Your task to perform on an android device: check battery use Image 0: 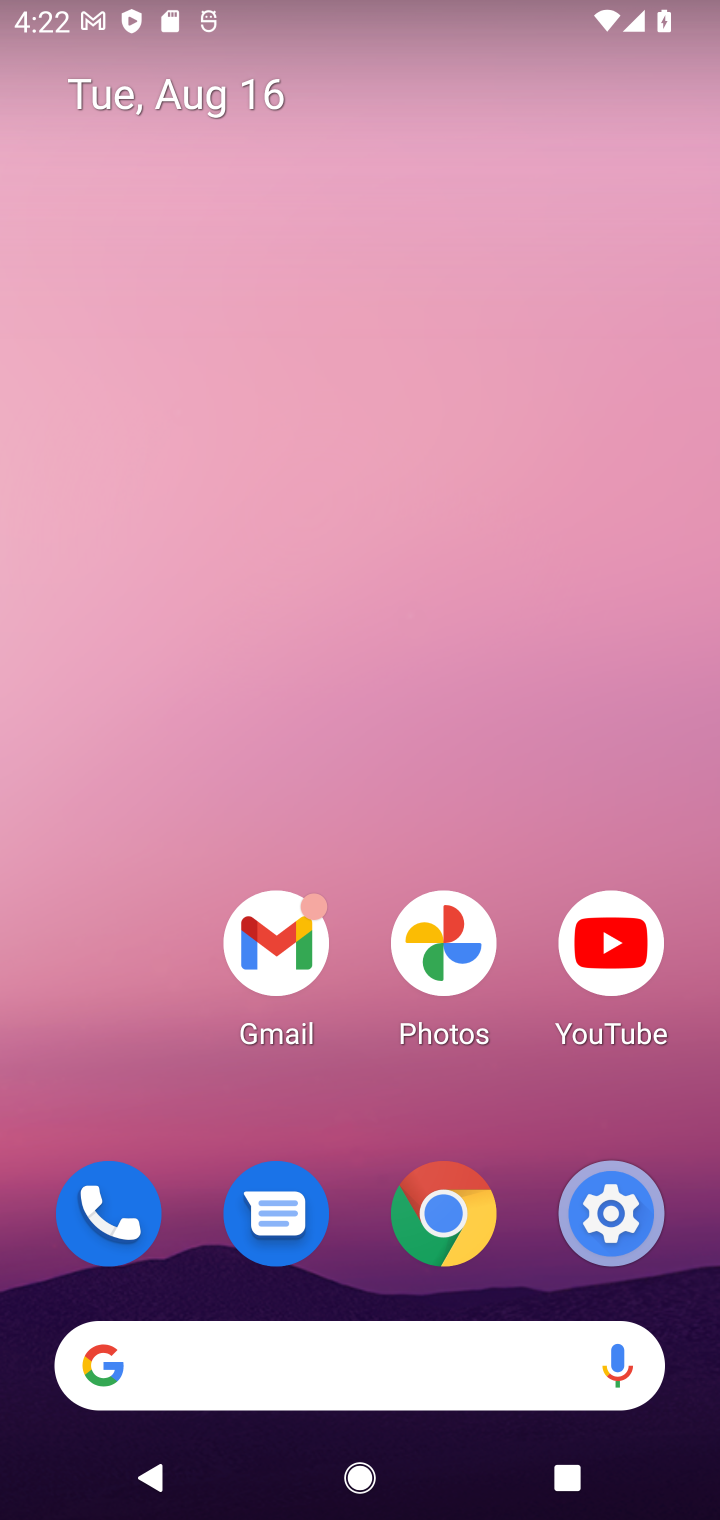
Step 0: drag from (357, 1088) to (453, 11)
Your task to perform on an android device: check battery use Image 1: 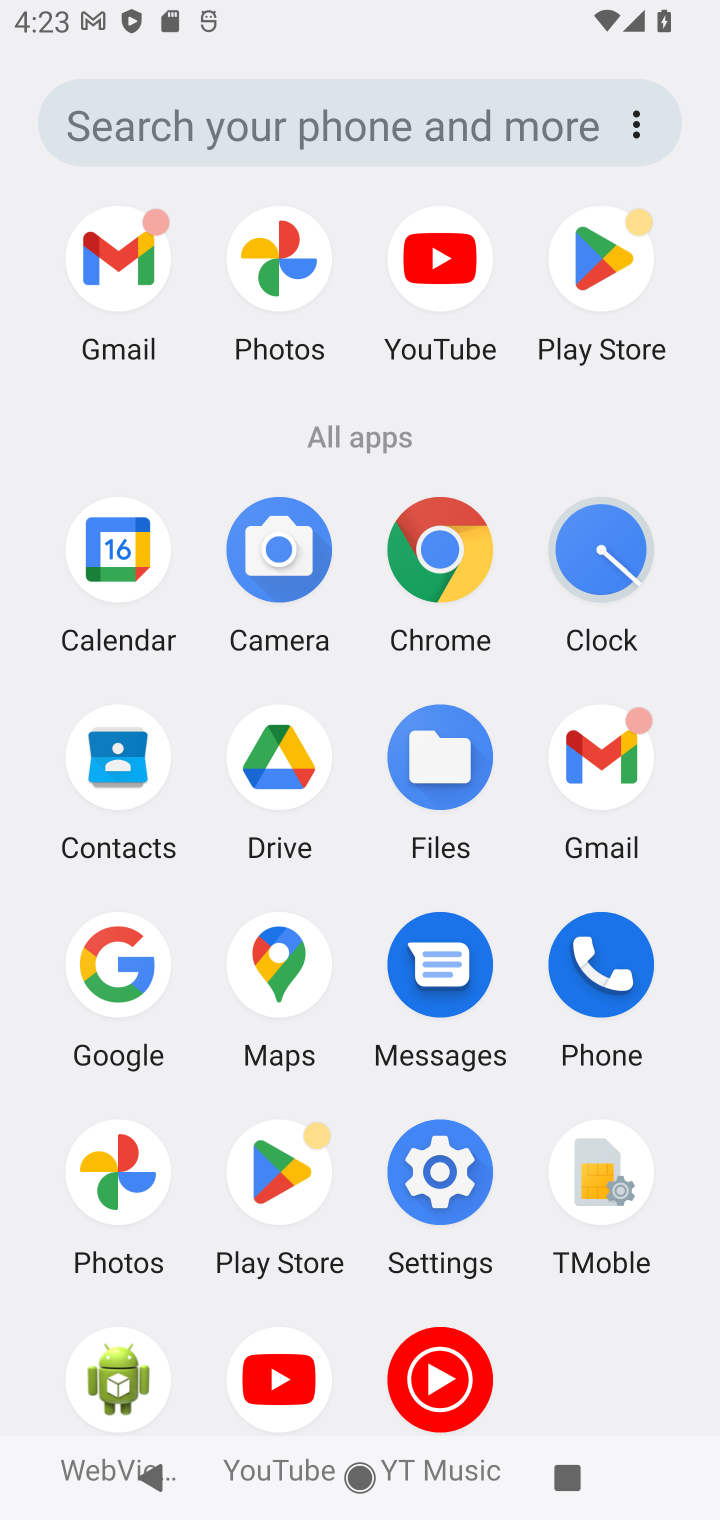
Step 1: click (430, 1173)
Your task to perform on an android device: check battery use Image 2: 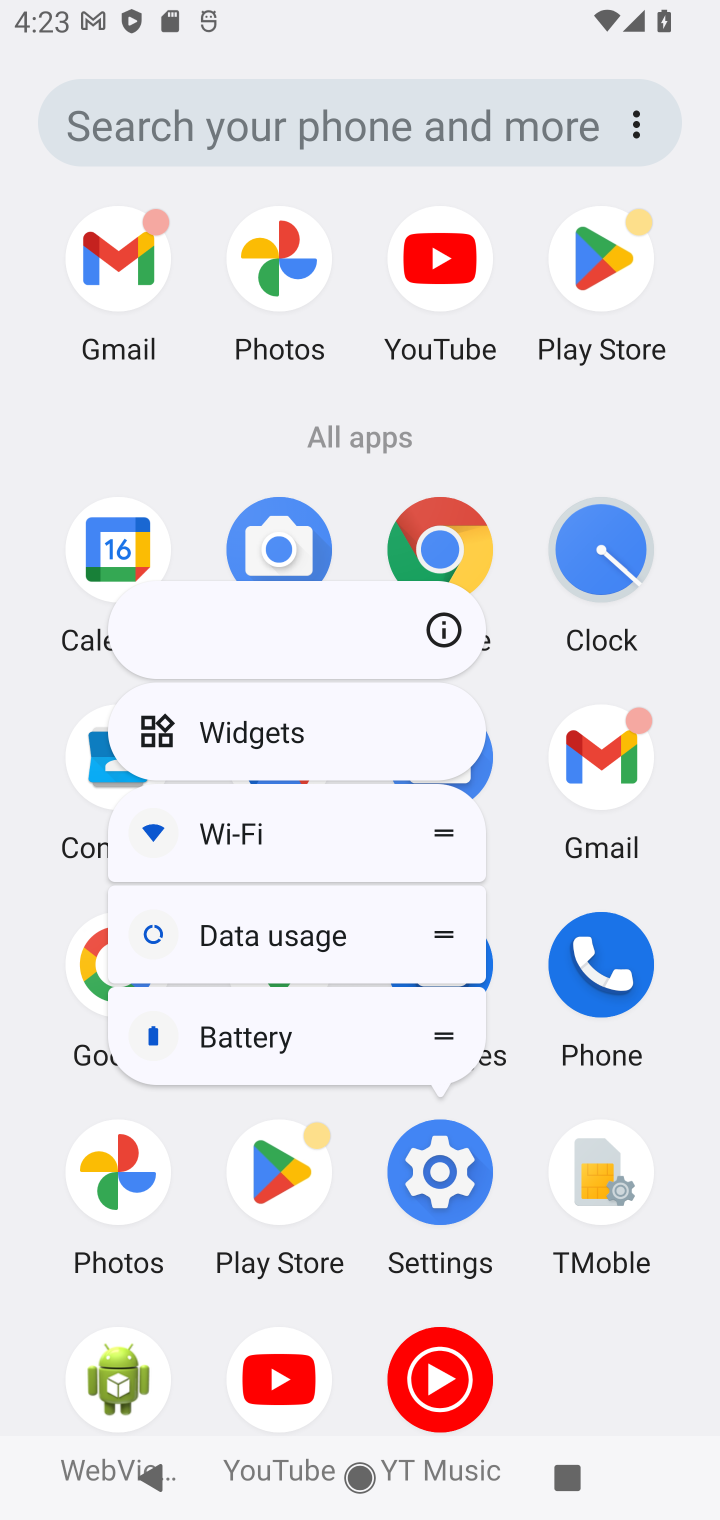
Step 2: click (439, 1169)
Your task to perform on an android device: check battery use Image 3: 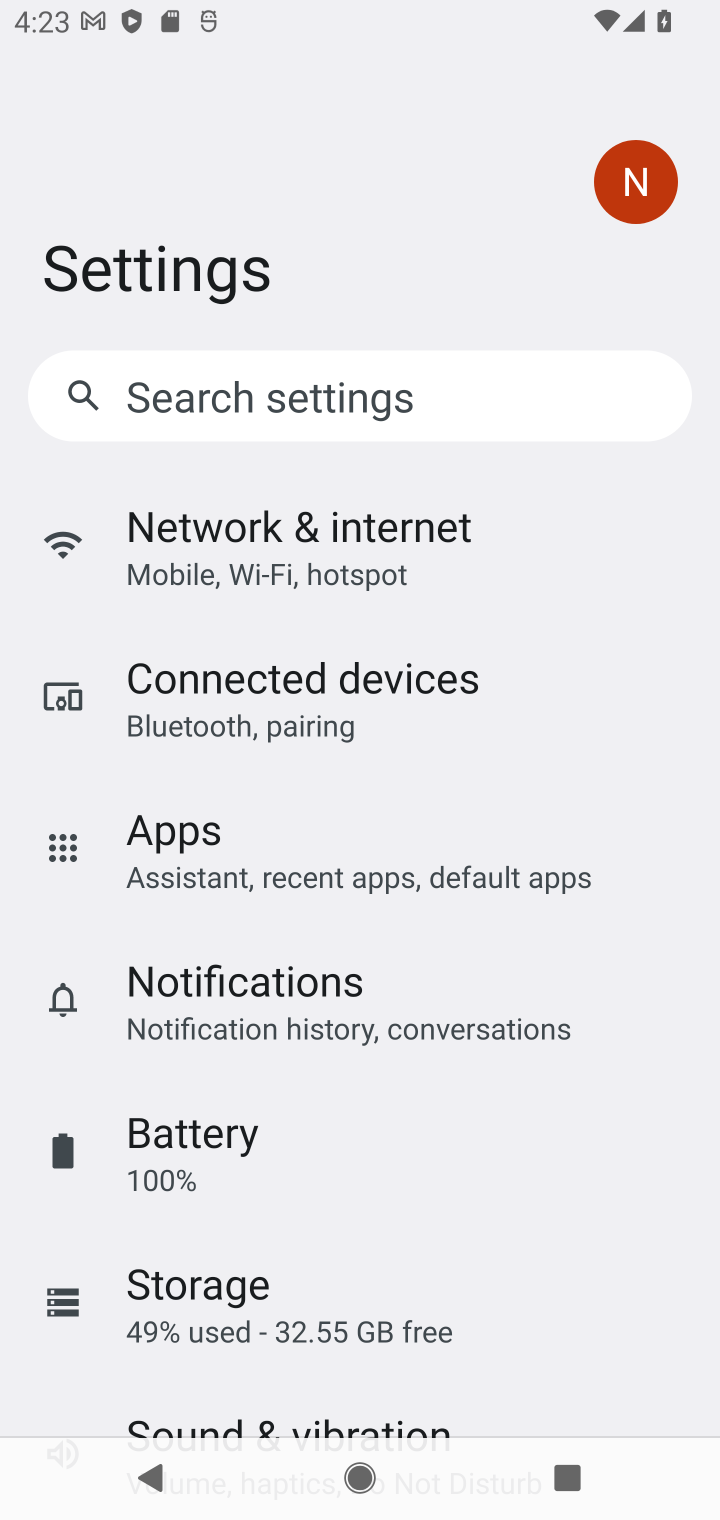
Step 3: click (190, 1139)
Your task to perform on an android device: check battery use Image 4: 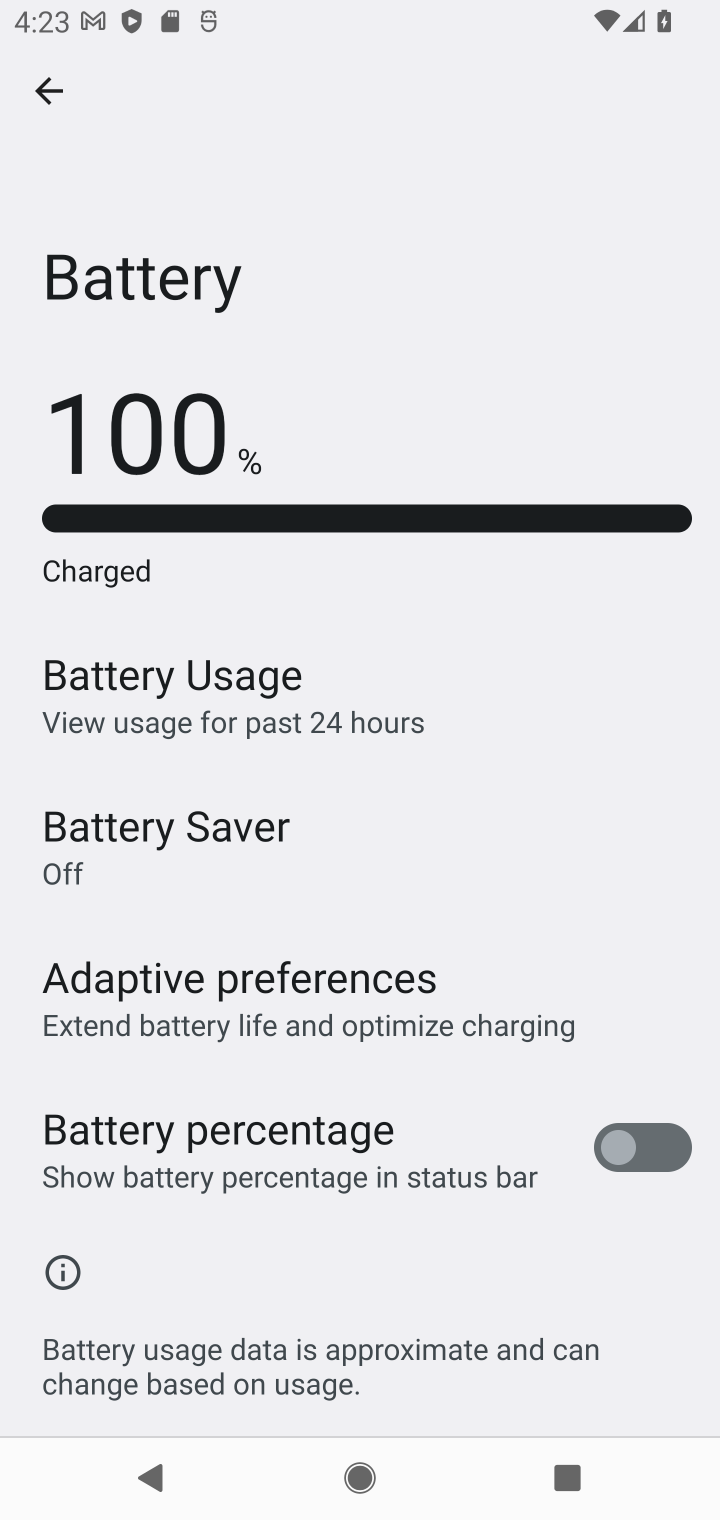
Step 4: click (346, 721)
Your task to perform on an android device: check battery use Image 5: 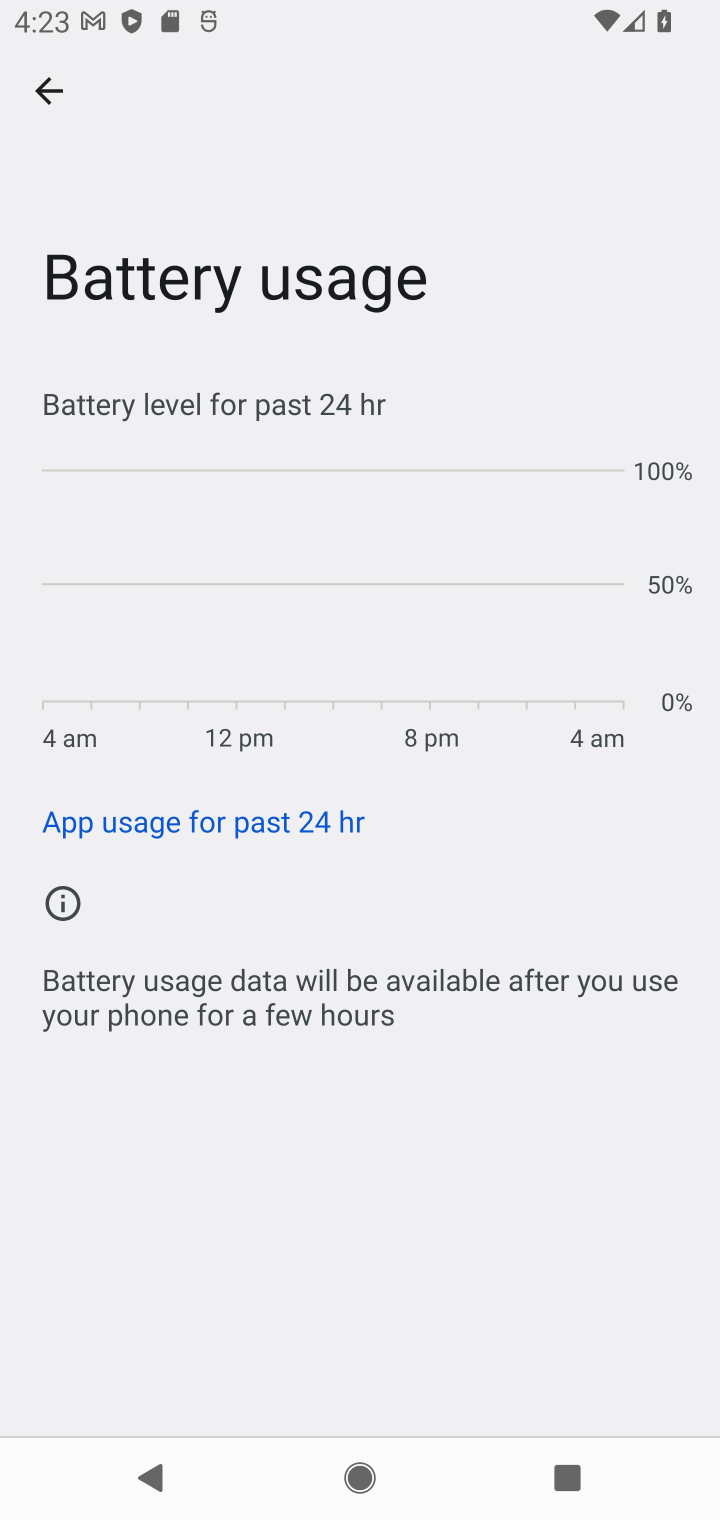
Step 5: task complete